Your task to perform on an android device: uninstall "Google News" Image 0: 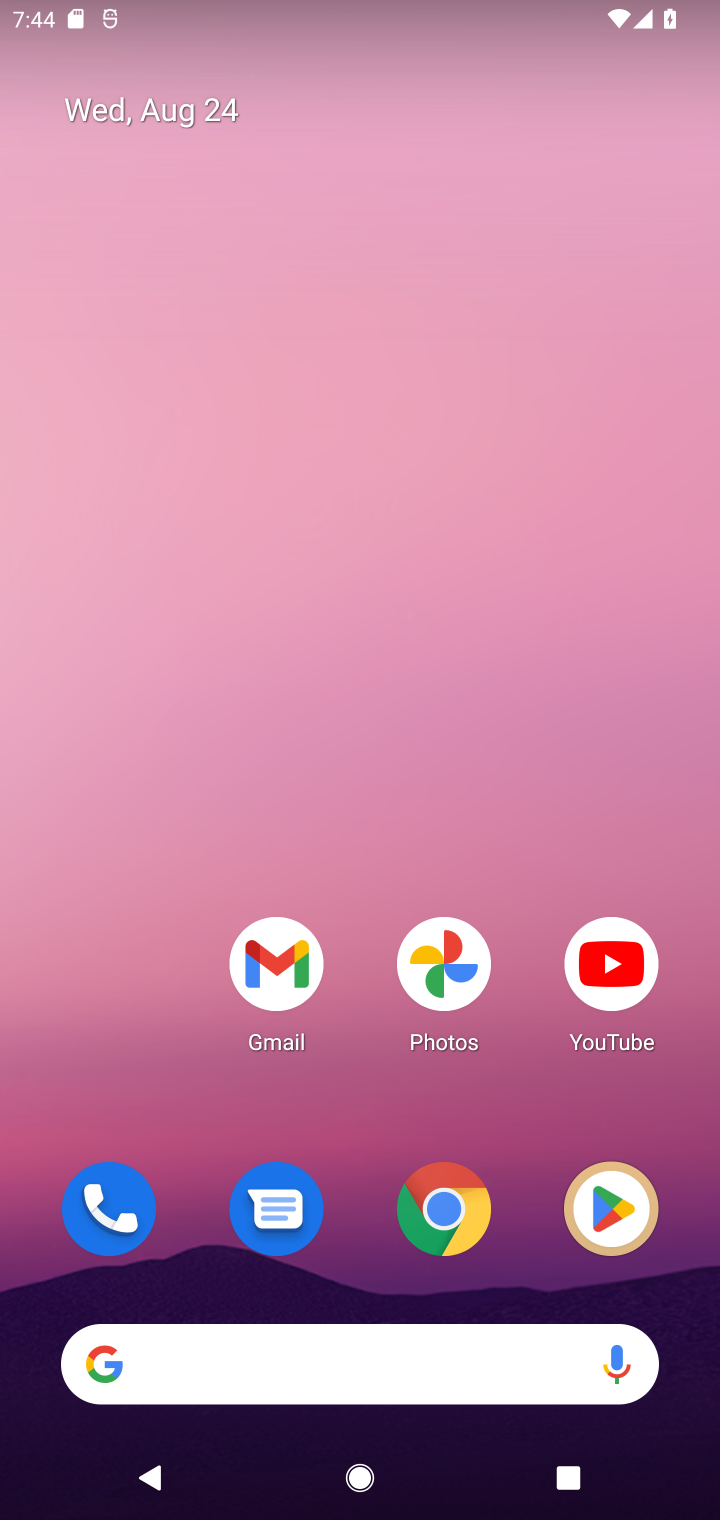
Step 0: drag from (333, 1030) to (491, 285)
Your task to perform on an android device: uninstall "Google News" Image 1: 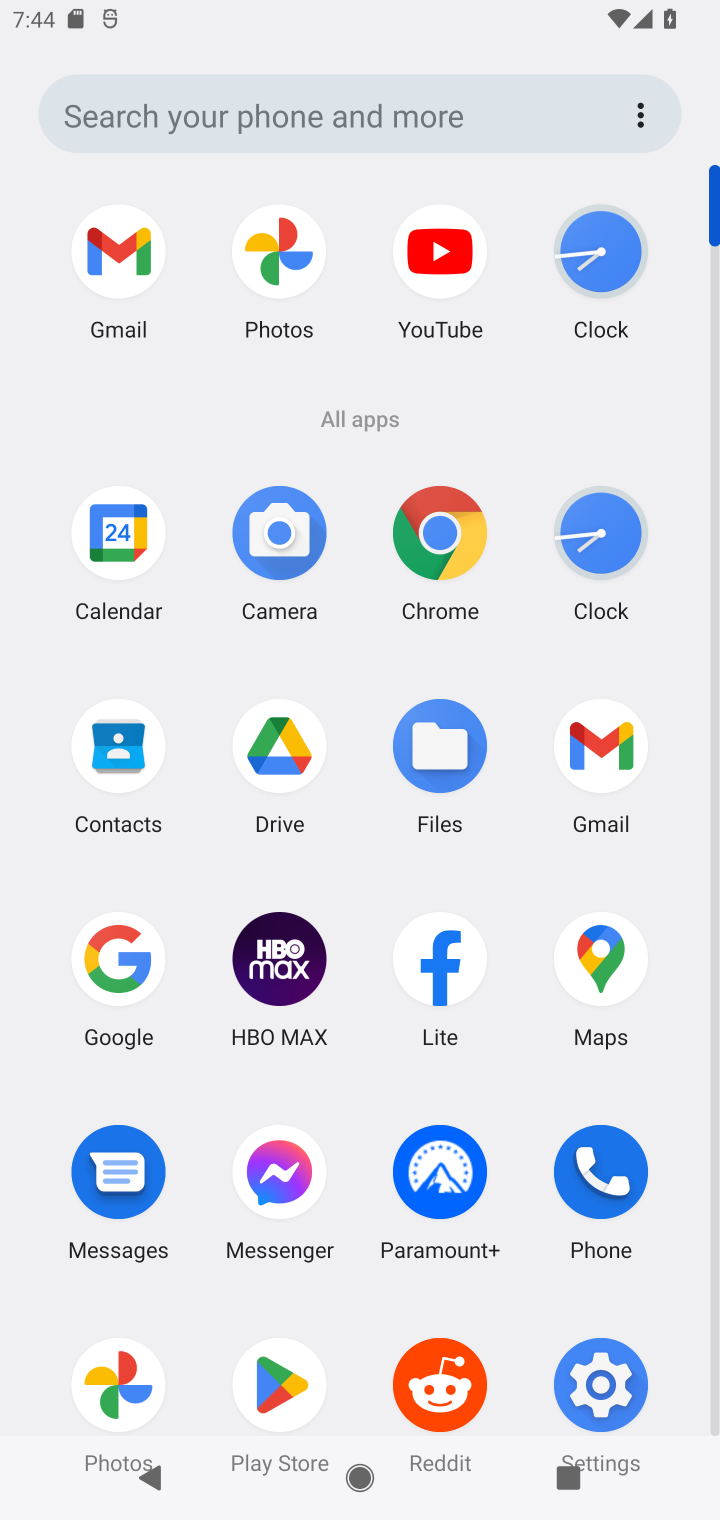
Step 1: drag from (446, 1266) to (427, 582)
Your task to perform on an android device: uninstall "Google News" Image 2: 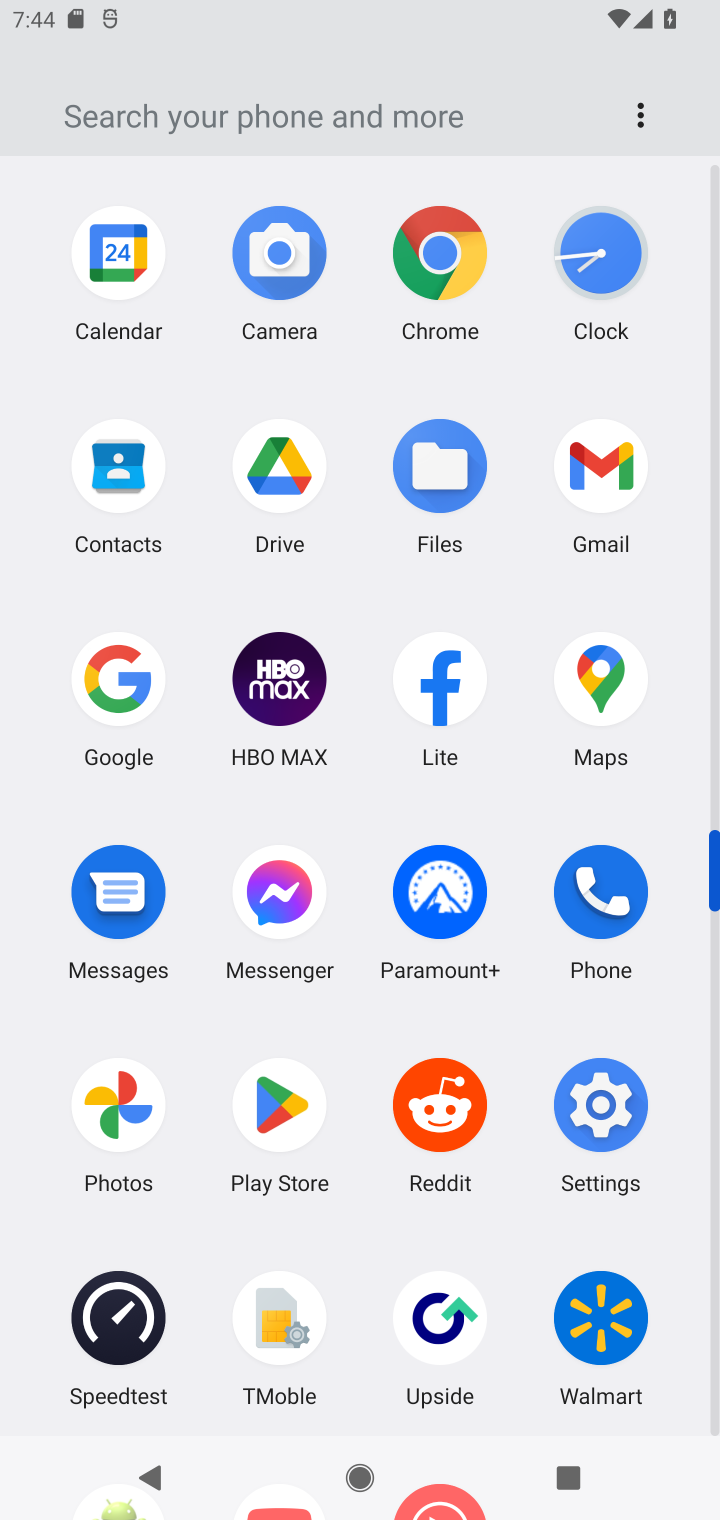
Step 2: click (280, 1107)
Your task to perform on an android device: uninstall "Google News" Image 3: 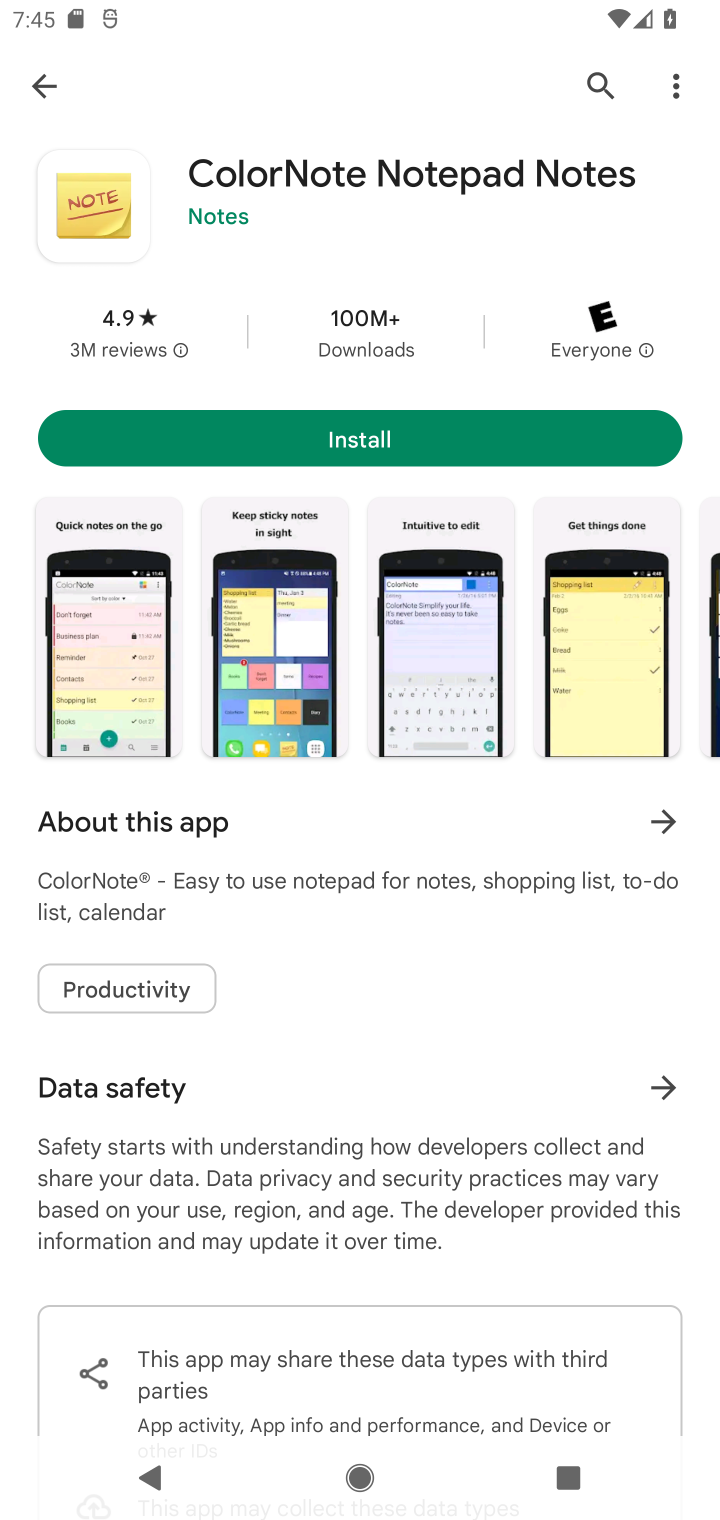
Step 3: press back button
Your task to perform on an android device: uninstall "Google News" Image 4: 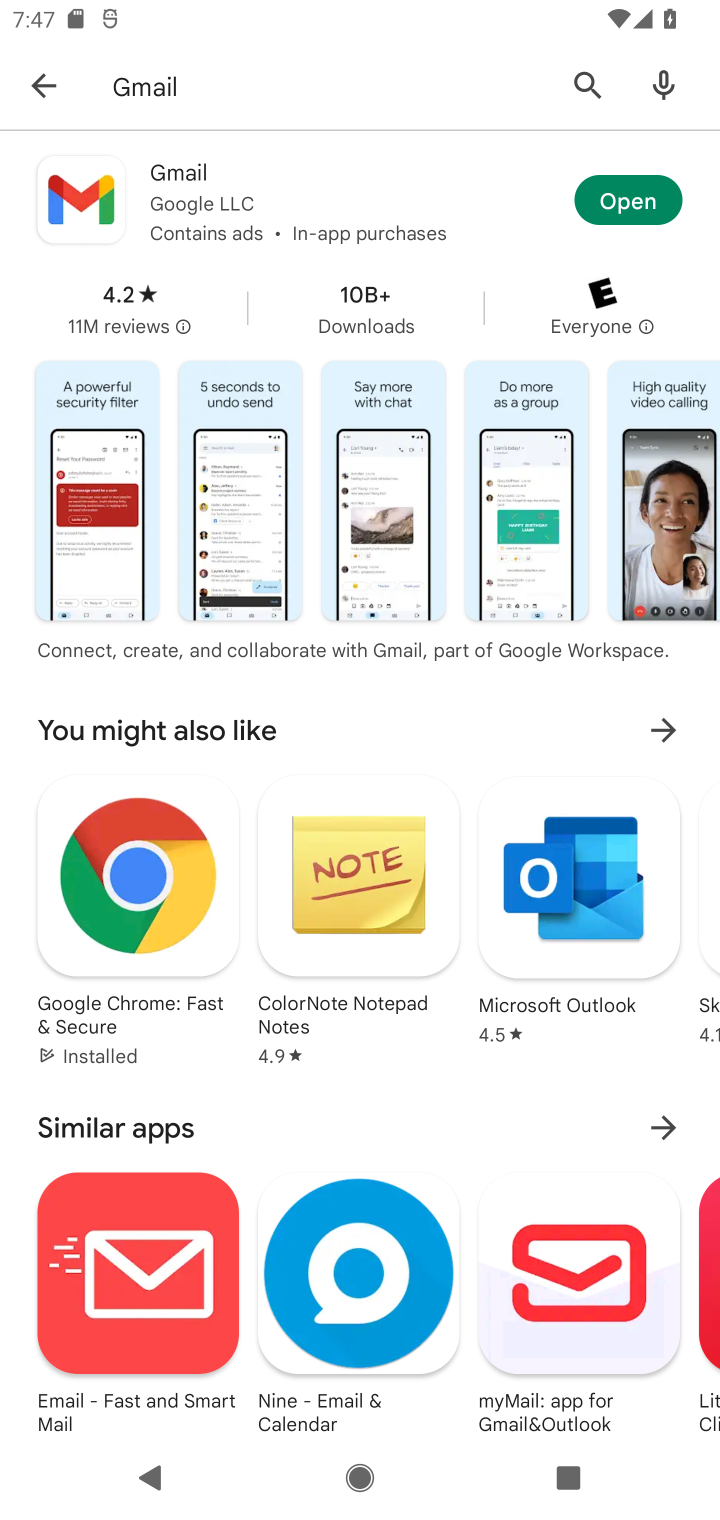
Step 4: press back button
Your task to perform on an android device: uninstall "Google News" Image 5: 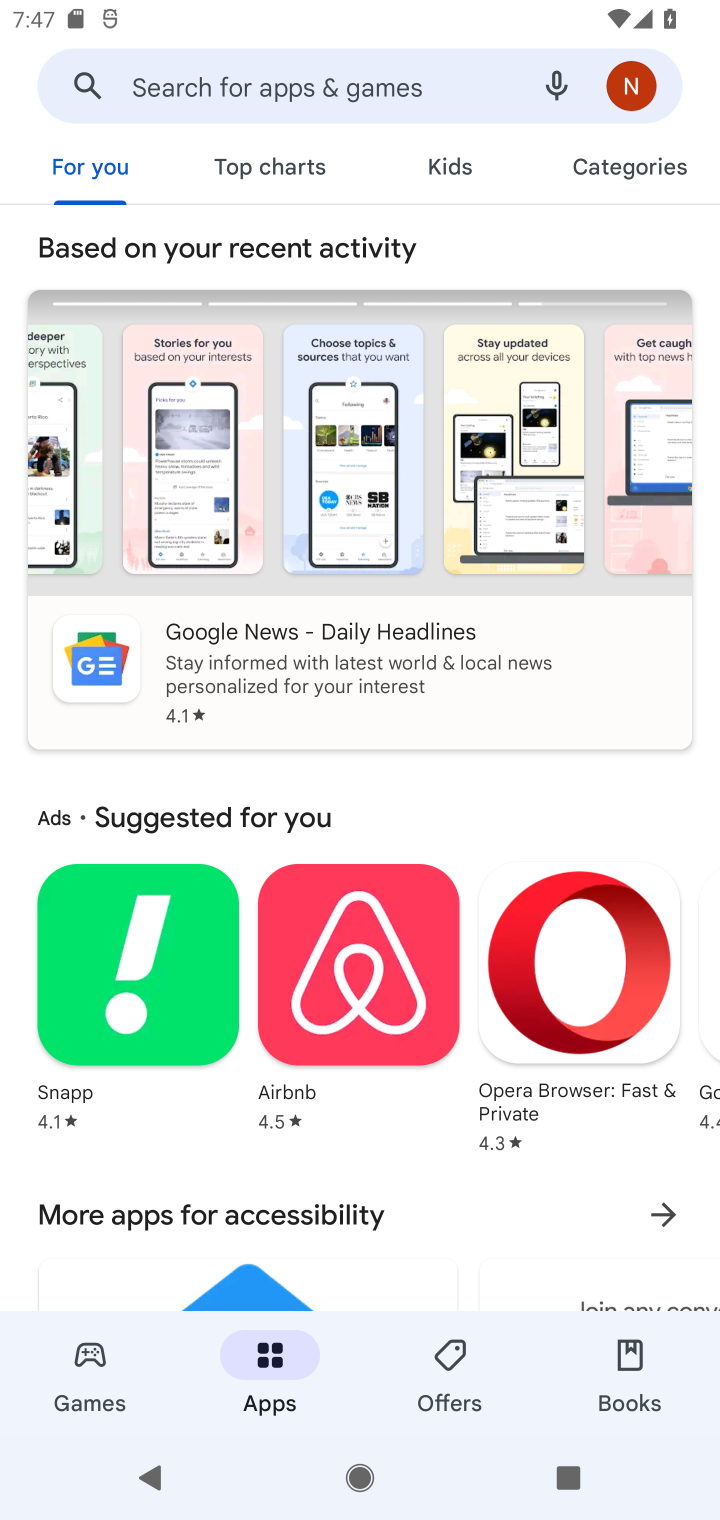
Step 5: click (239, 98)
Your task to perform on an android device: uninstall "Google News" Image 6: 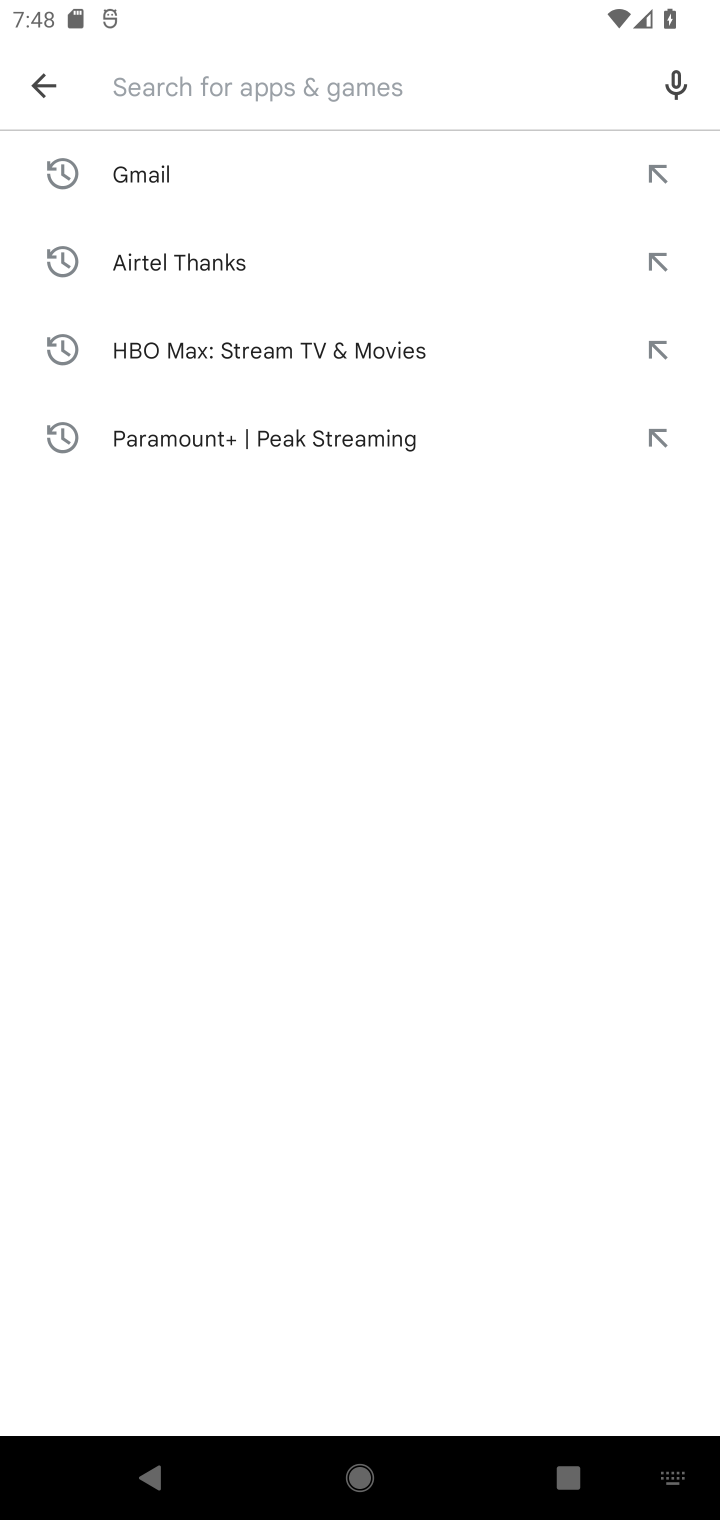
Step 6: type "Google News"
Your task to perform on an android device: uninstall "Google News" Image 7: 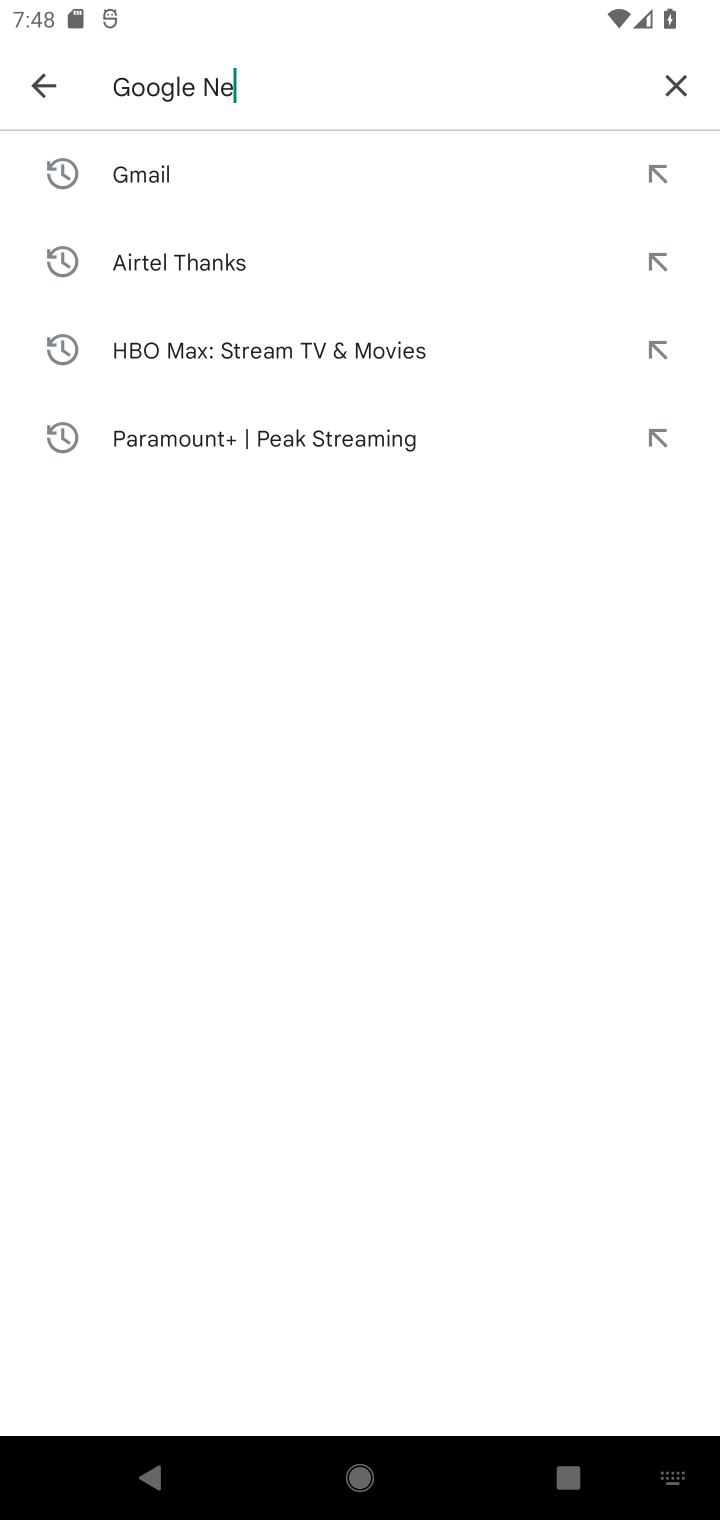
Step 7: press enter
Your task to perform on an android device: uninstall "Google News" Image 8: 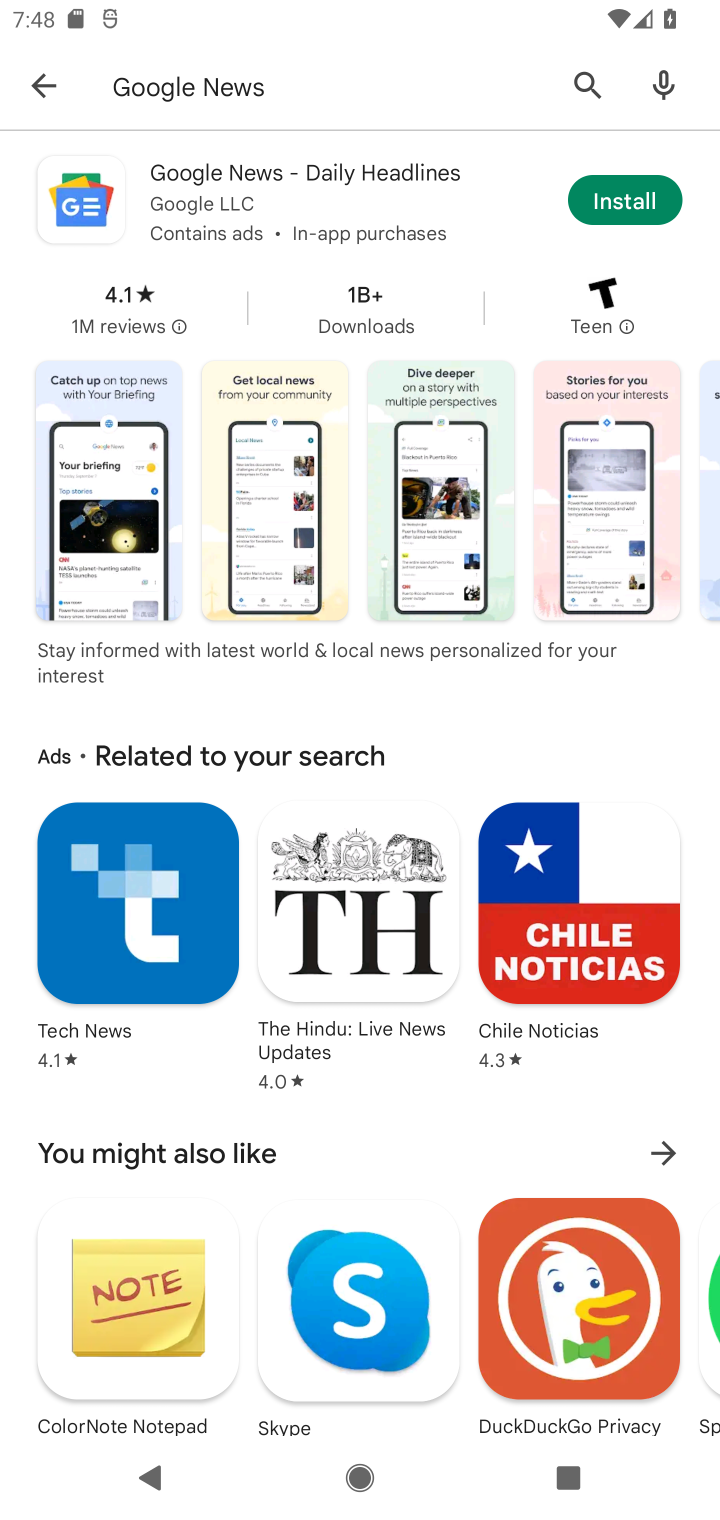
Step 8: task complete